Your task to perform on an android device: check out phone information Image 0: 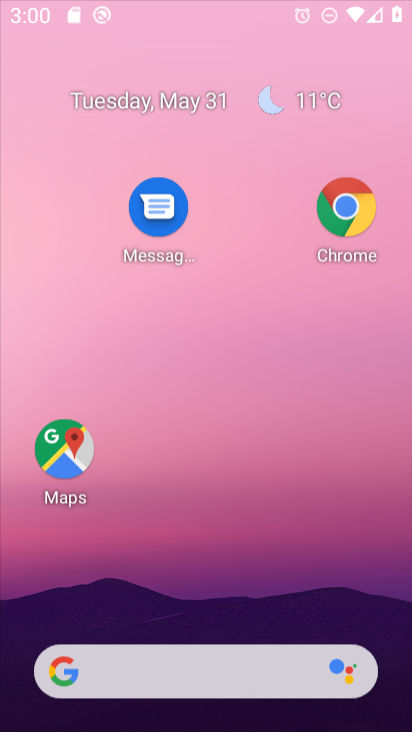
Step 0: drag from (207, 287) to (230, 58)
Your task to perform on an android device: check out phone information Image 1: 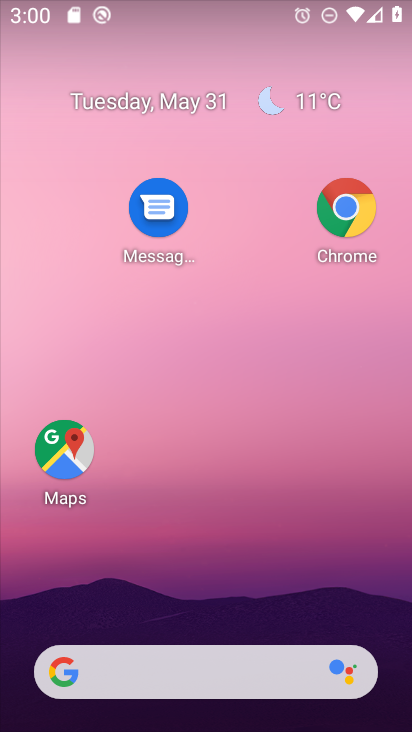
Step 1: drag from (173, 584) to (236, 73)
Your task to perform on an android device: check out phone information Image 2: 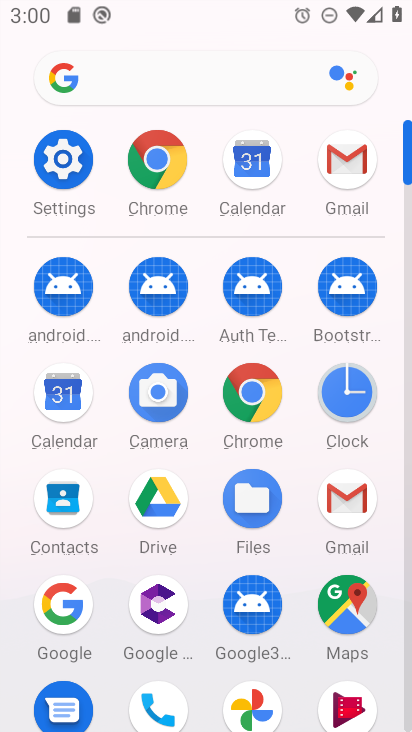
Step 2: click (53, 165)
Your task to perform on an android device: check out phone information Image 3: 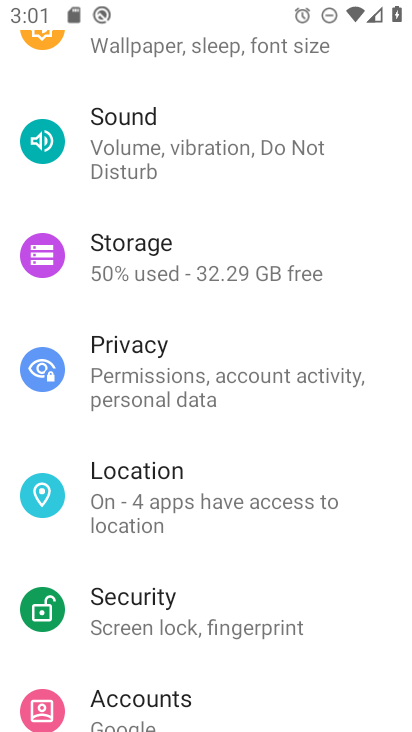
Step 3: drag from (138, 514) to (207, 4)
Your task to perform on an android device: check out phone information Image 4: 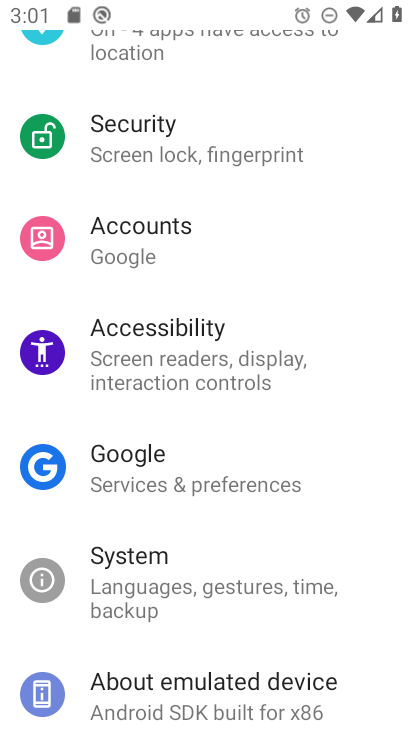
Step 4: drag from (173, 730) to (257, 209)
Your task to perform on an android device: check out phone information Image 5: 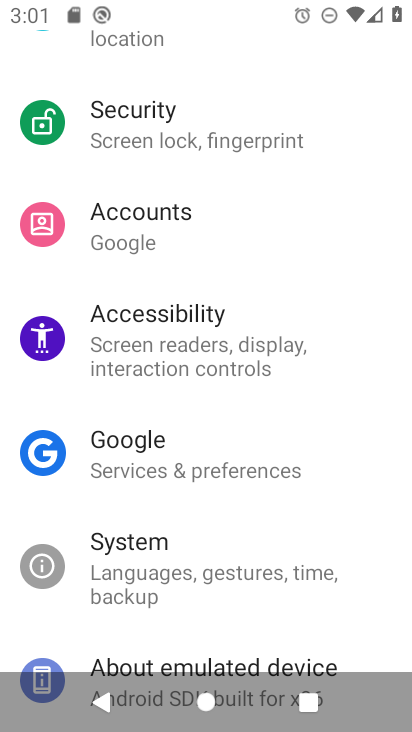
Step 5: click (166, 654)
Your task to perform on an android device: check out phone information Image 6: 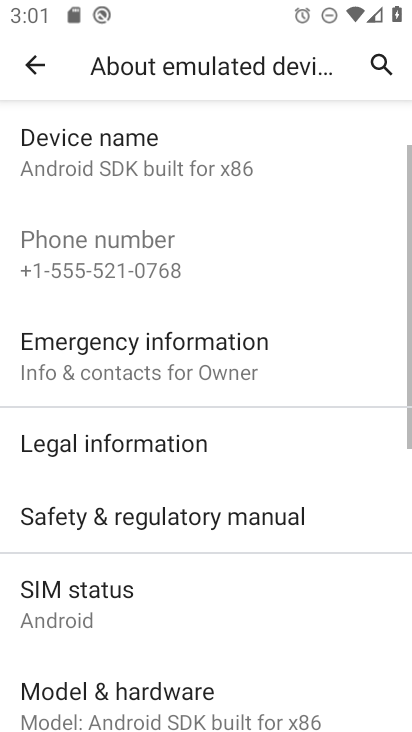
Step 6: task complete